Your task to perform on an android device: change keyboard looks Image 0: 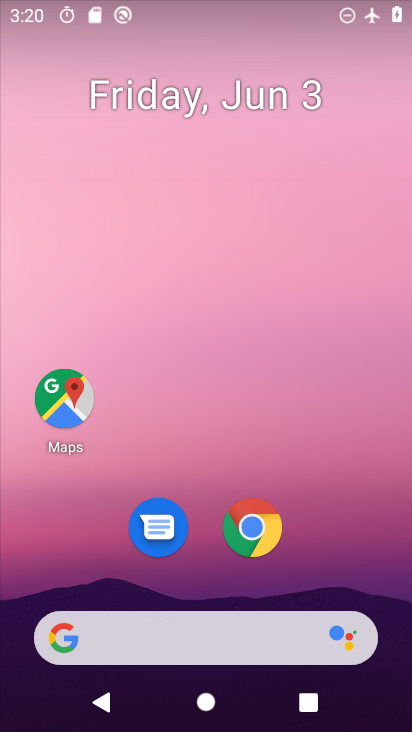
Step 0: drag from (319, 573) to (287, 140)
Your task to perform on an android device: change keyboard looks Image 1: 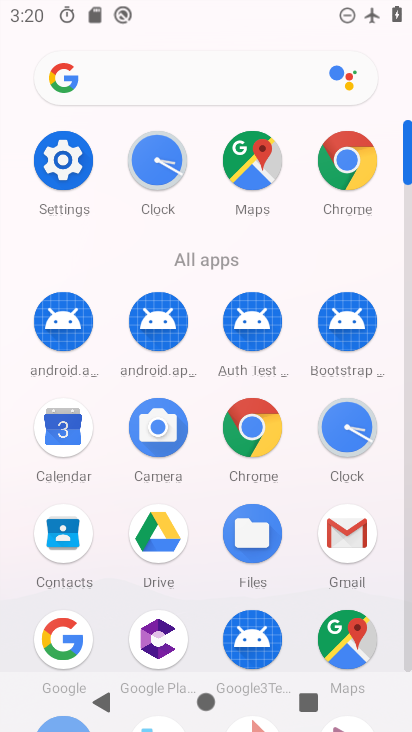
Step 1: click (63, 154)
Your task to perform on an android device: change keyboard looks Image 2: 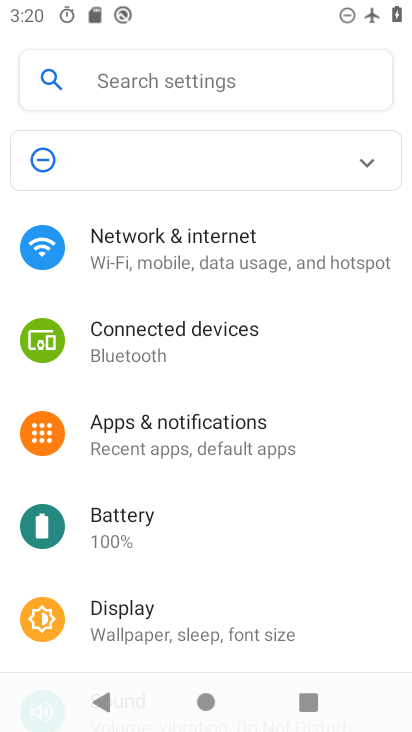
Step 2: drag from (204, 578) to (199, 161)
Your task to perform on an android device: change keyboard looks Image 3: 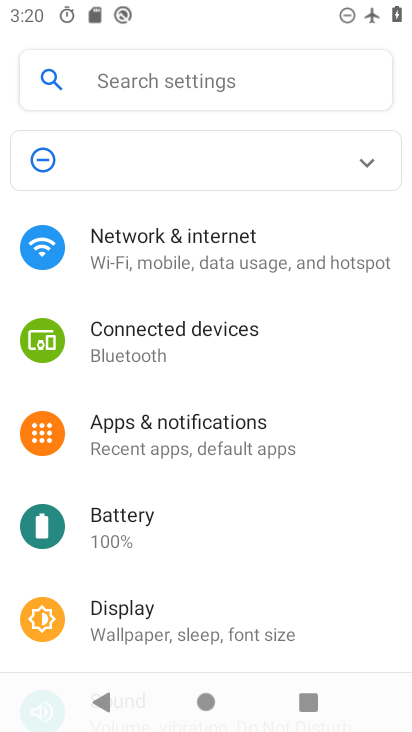
Step 3: drag from (193, 592) to (265, 87)
Your task to perform on an android device: change keyboard looks Image 4: 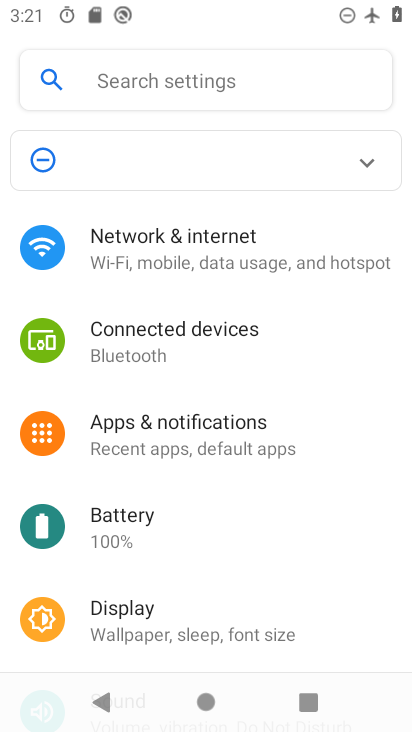
Step 4: drag from (181, 443) to (197, 168)
Your task to perform on an android device: change keyboard looks Image 5: 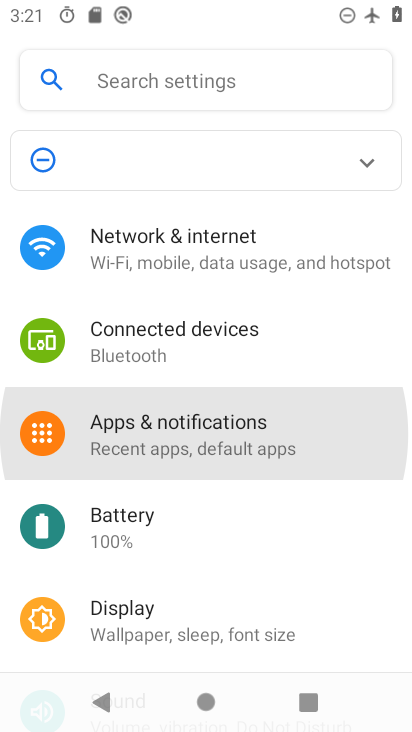
Step 5: drag from (182, 483) to (210, 168)
Your task to perform on an android device: change keyboard looks Image 6: 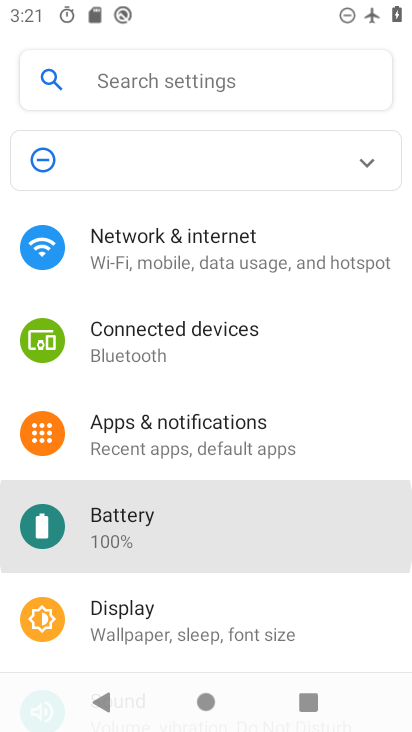
Step 6: drag from (228, 490) to (237, 185)
Your task to perform on an android device: change keyboard looks Image 7: 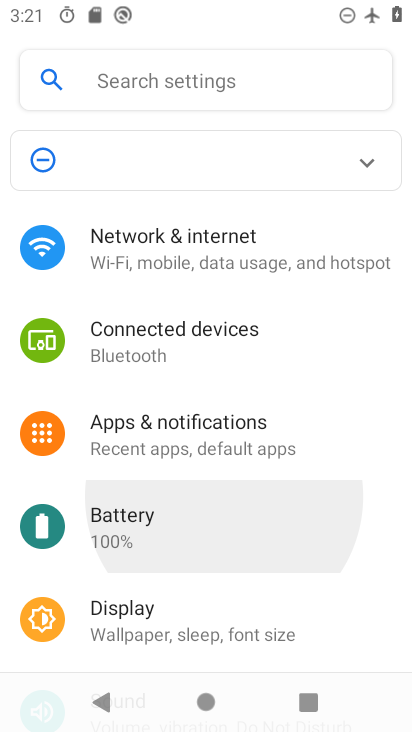
Step 7: drag from (288, 512) to (221, 93)
Your task to perform on an android device: change keyboard looks Image 8: 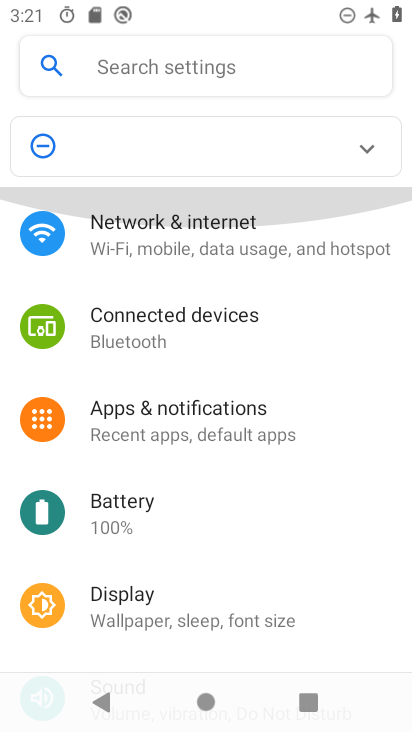
Step 8: drag from (249, 500) to (279, 142)
Your task to perform on an android device: change keyboard looks Image 9: 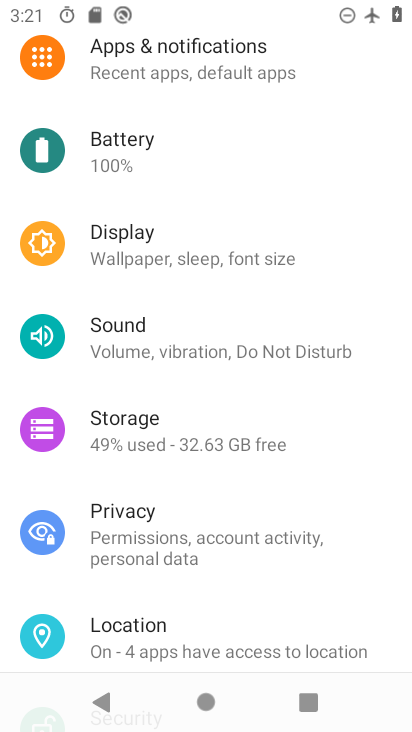
Step 9: drag from (157, 517) to (150, 158)
Your task to perform on an android device: change keyboard looks Image 10: 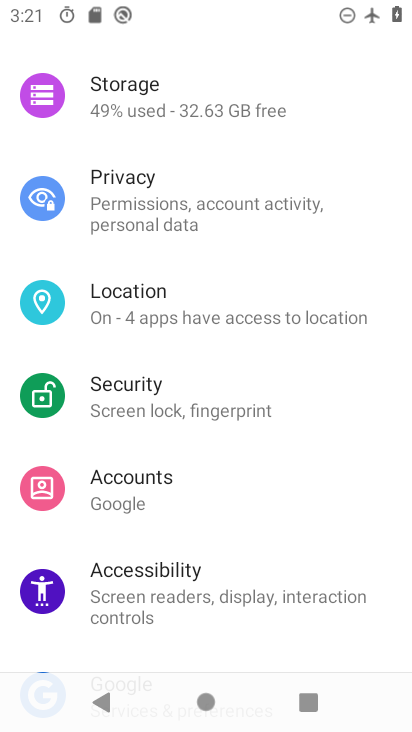
Step 10: drag from (130, 567) to (180, 183)
Your task to perform on an android device: change keyboard looks Image 11: 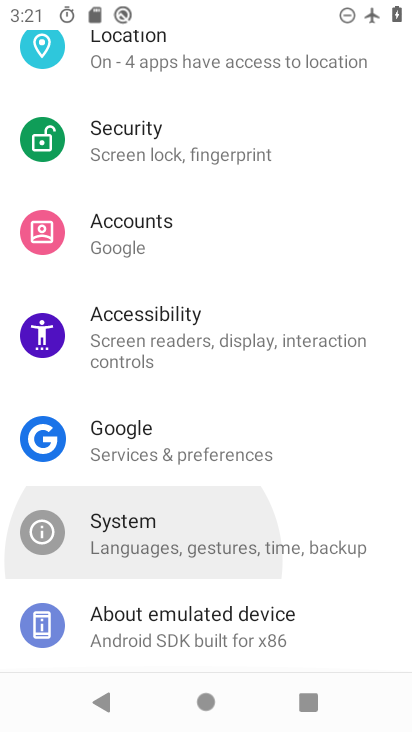
Step 11: drag from (155, 584) to (234, 232)
Your task to perform on an android device: change keyboard looks Image 12: 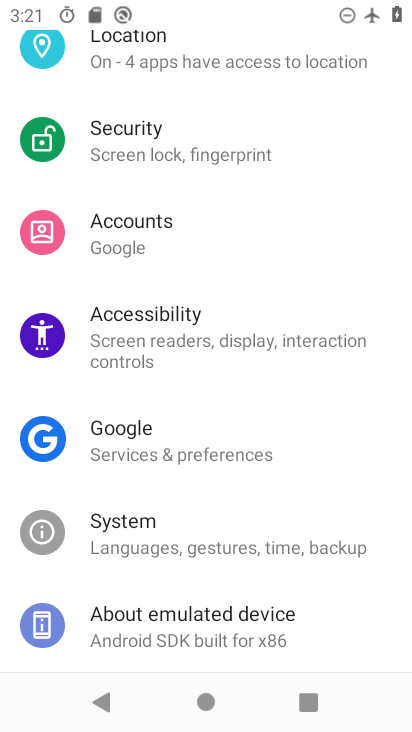
Step 12: click (167, 533)
Your task to perform on an android device: change keyboard looks Image 13: 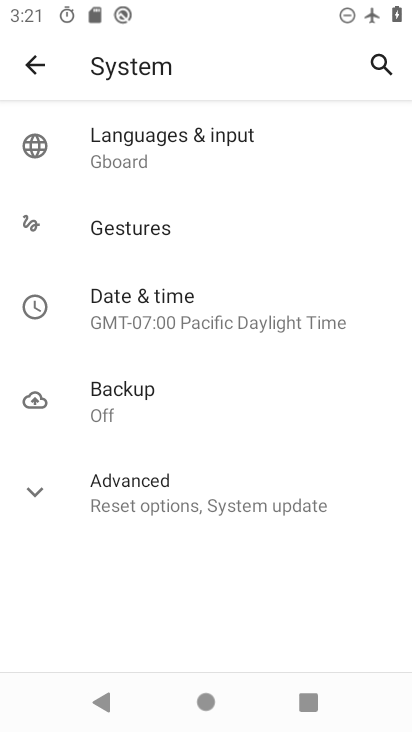
Step 13: click (168, 153)
Your task to perform on an android device: change keyboard looks Image 14: 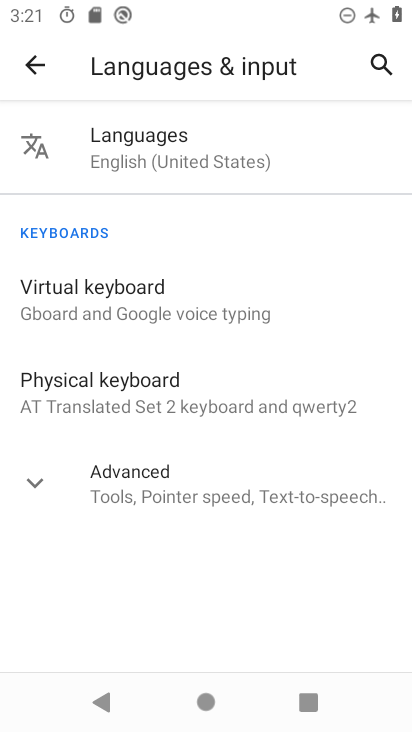
Step 14: click (107, 316)
Your task to perform on an android device: change keyboard looks Image 15: 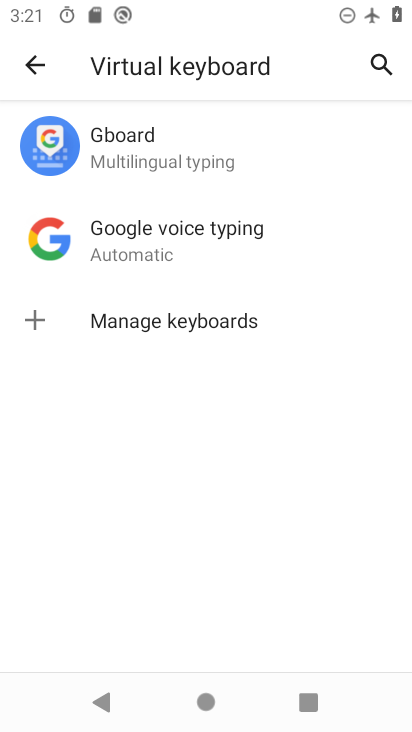
Step 15: click (121, 148)
Your task to perform on an android device: change keyboard looks Image 16: 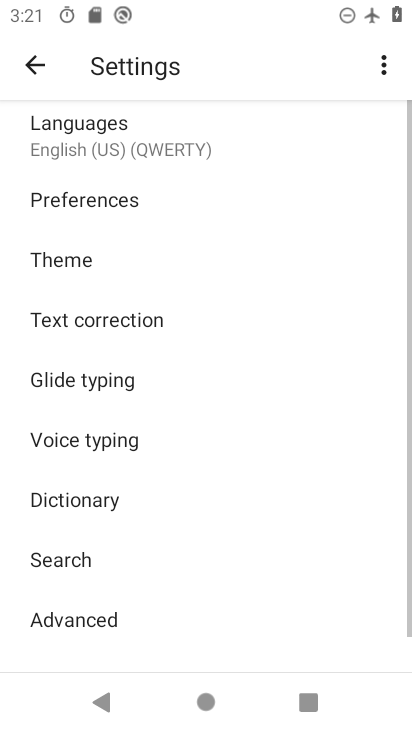
Step 16: click (92, 244)
Your task to perform on an android device: change keyboard looks Image 17: 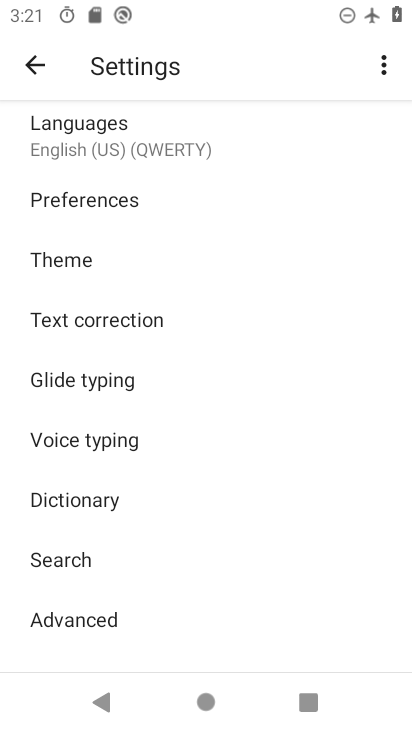
Step 17: click (117, 257)
Your task to perform on an android device: change keyboard looks Image 18: 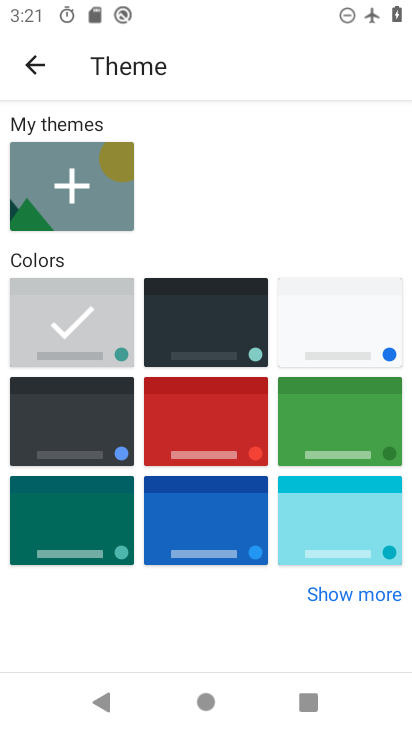
Step 18: click (221, 508)
Your task to perform on an android device: change keyboard looks Image 19: 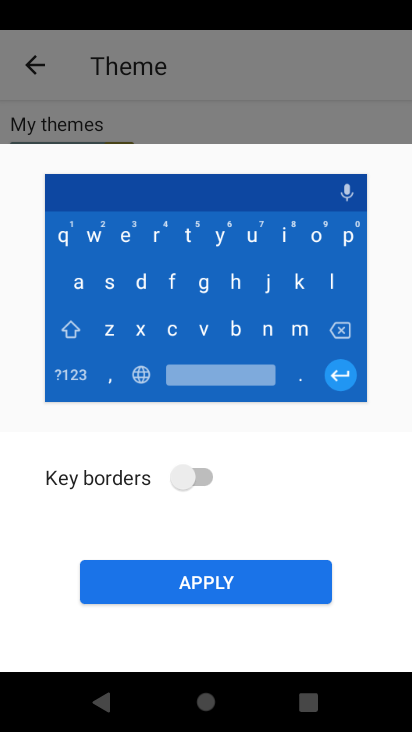
Step 19: click (182, 479)
Your task to perform on an android device: change keyboard looks Image 20: 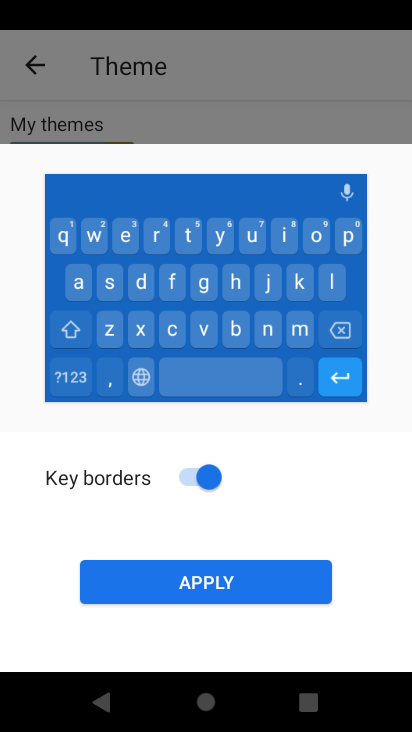
Step 20: click (209, 580)
Your task to perform on an android device: change keyboard looks Image 21: 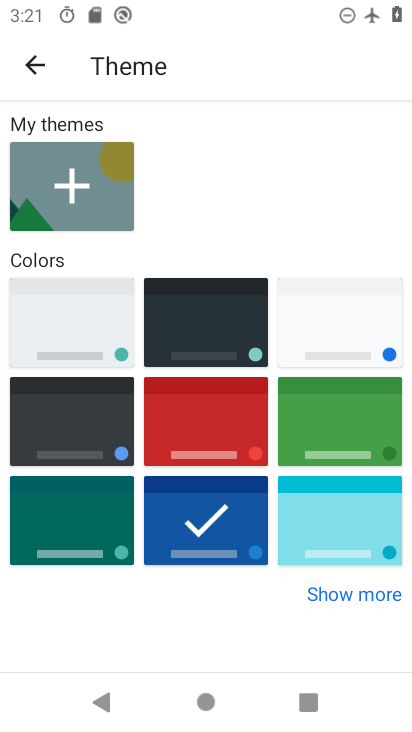
Step 21: task complete